Your task to perform on an android device: Go to Yahoo.com Image 0: 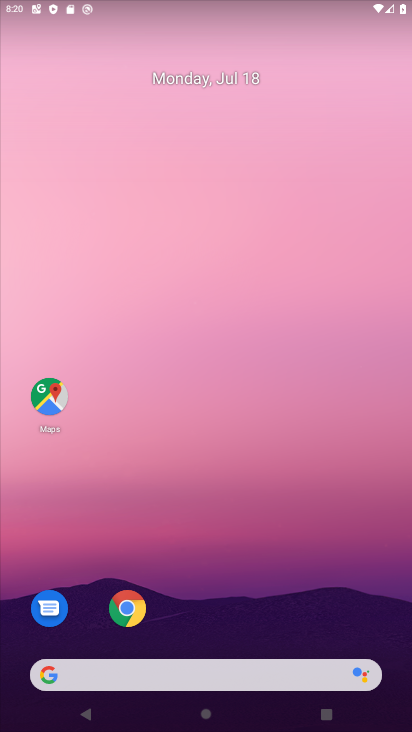
Step 0: drag from (243, 718) to (264, 163)
Your task to perform on an android device: Go to Yahoo.com Image 1: 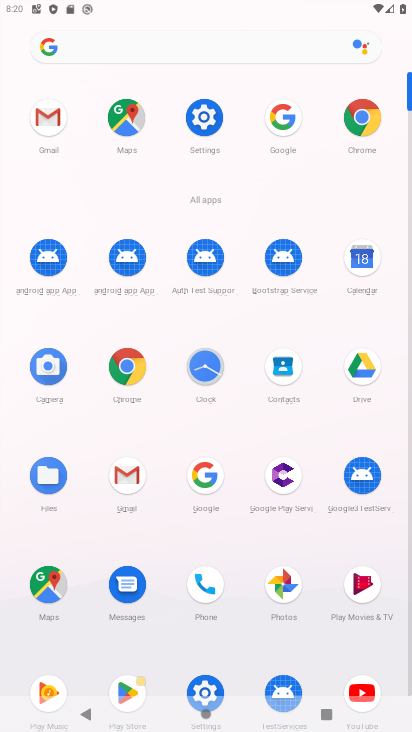
Step 1: click (357, 114)
Your task to perform on an android device: Go to Yahoo.com Image 2: 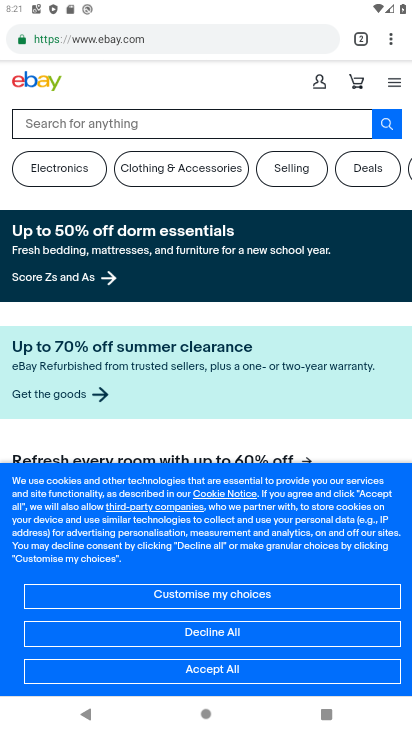
Step 2: click (390, 45)
Your task to perform on an android device: Go to Yahoo.com Image 3: 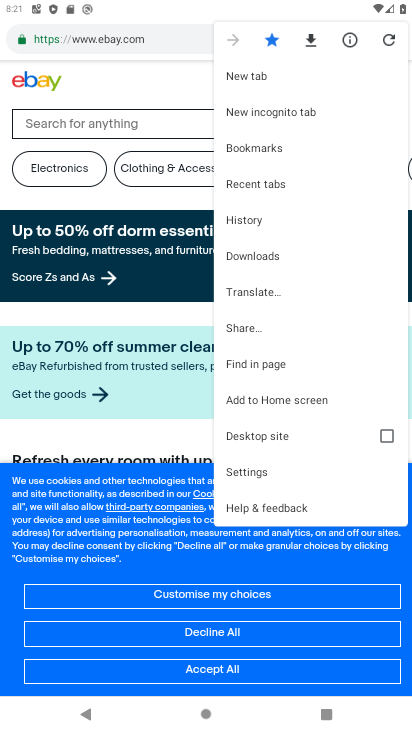
Step 3: click (252, 74)
Your task to perform on an android device: Go to Yahoo.com Image 4: 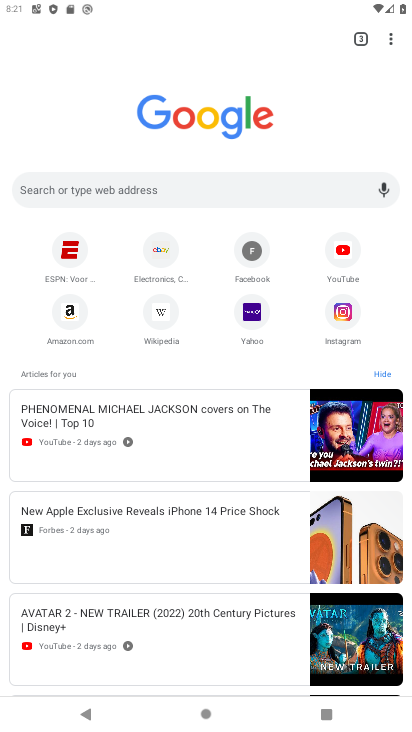
Step 4: click (259, 311)
Your task to perform on an android device: Go to Yahoo.com Image 5: 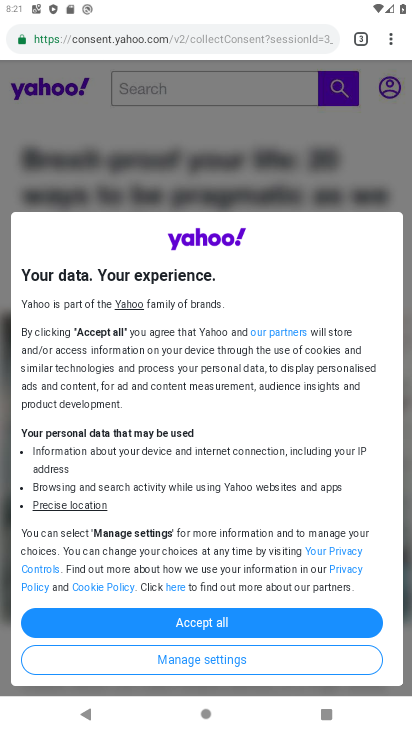
Step 5: task complete